Your task to perform on an android device: find snoozed emails in the gmail app Image 0: 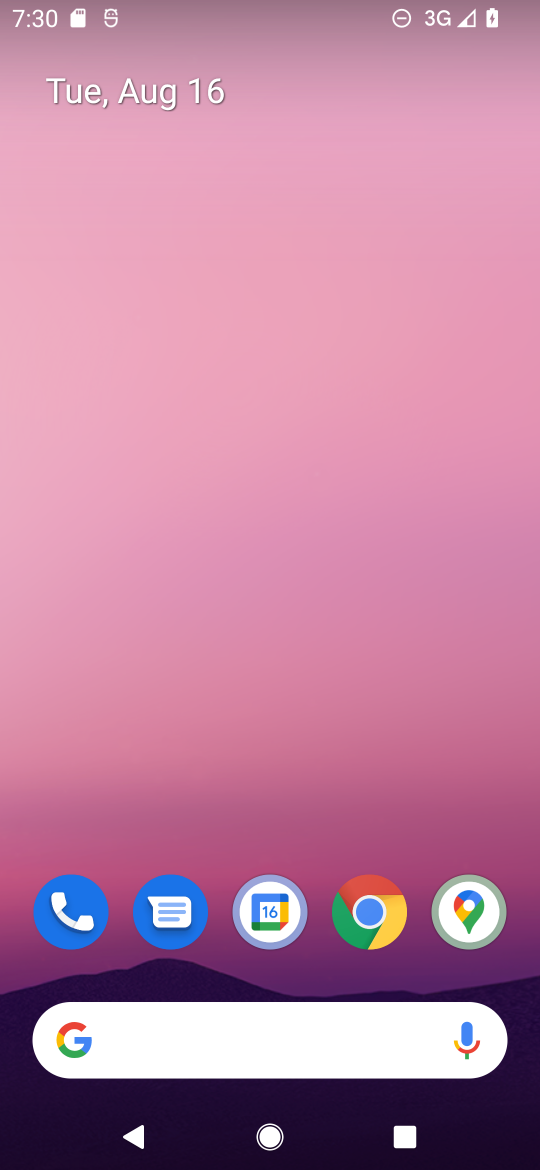
Step 0: drag from (424, 967) to (380, 72)
Your task to perform on an android device: find snoozed emails in the gmail app Image 1: 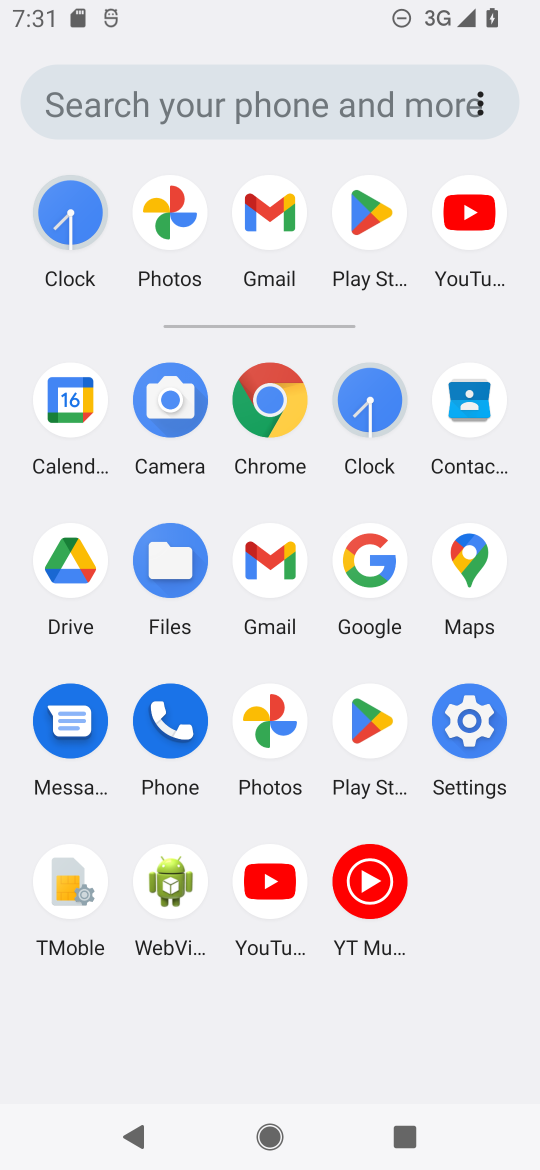
Step 1: click (268, 561)
Your task to perform on an android device: find snoozed emails in the gmail app Image 2: 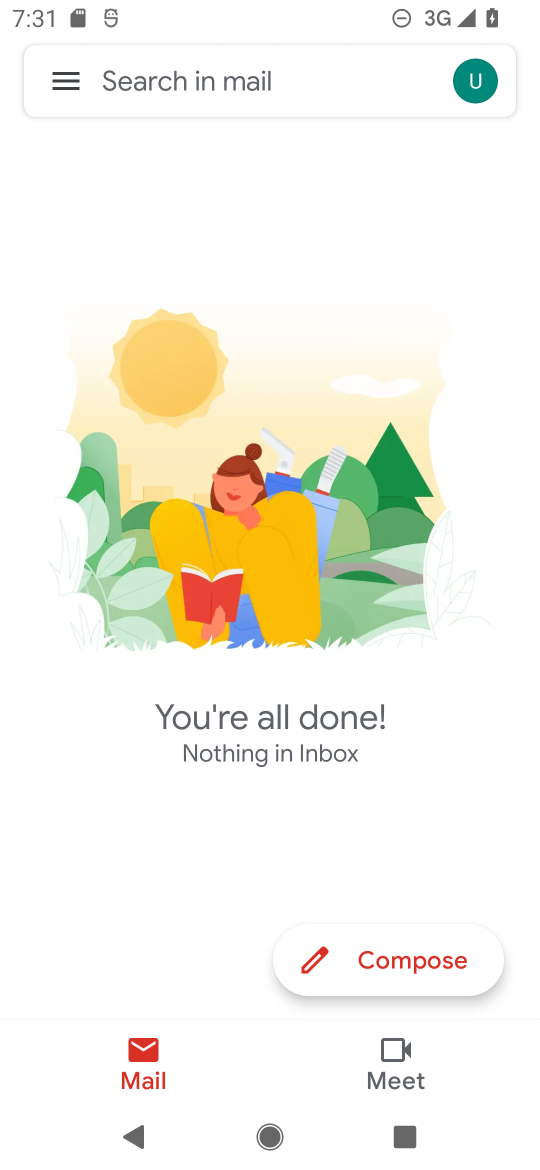
Step 2: click (57, 84)
Your task to perform on an android device: find snoozed emails in the gmail app Image 3: 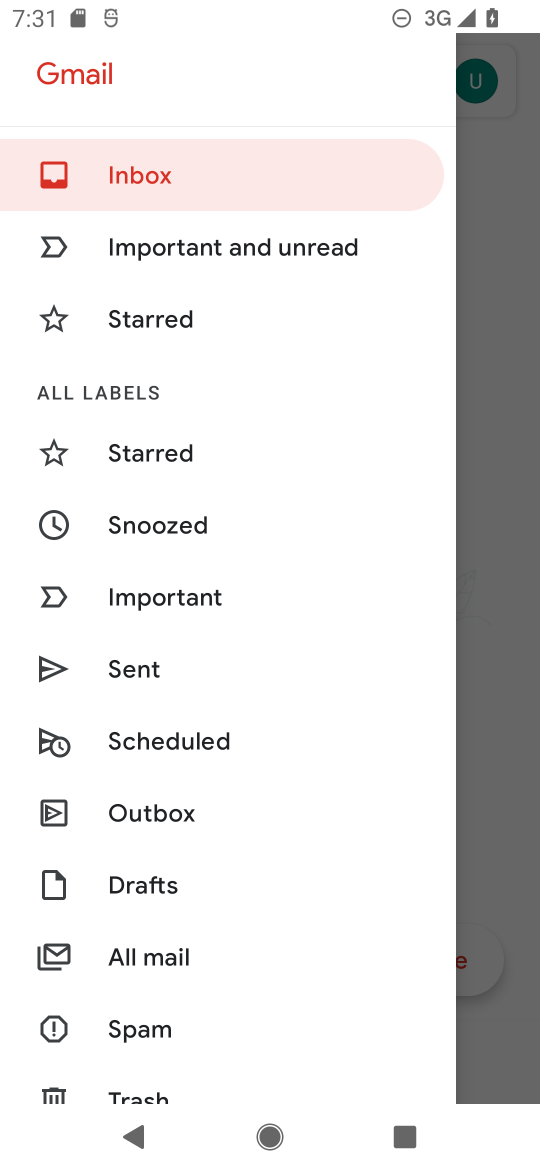
Step 3: drag from (278, 1022) to (280, 861)
Your task to perform on an android device: find snoozed emails in the gmail app Image 4: 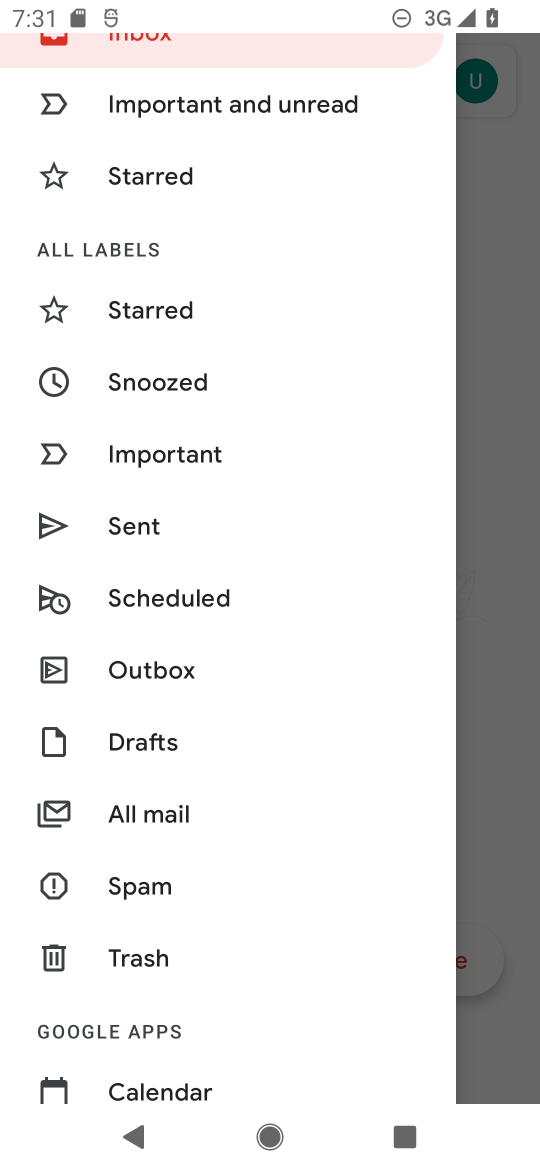
Step 4: click (166, 386)
Your task to perform on an android device: find snoozed emails in the gmail app Image 5: 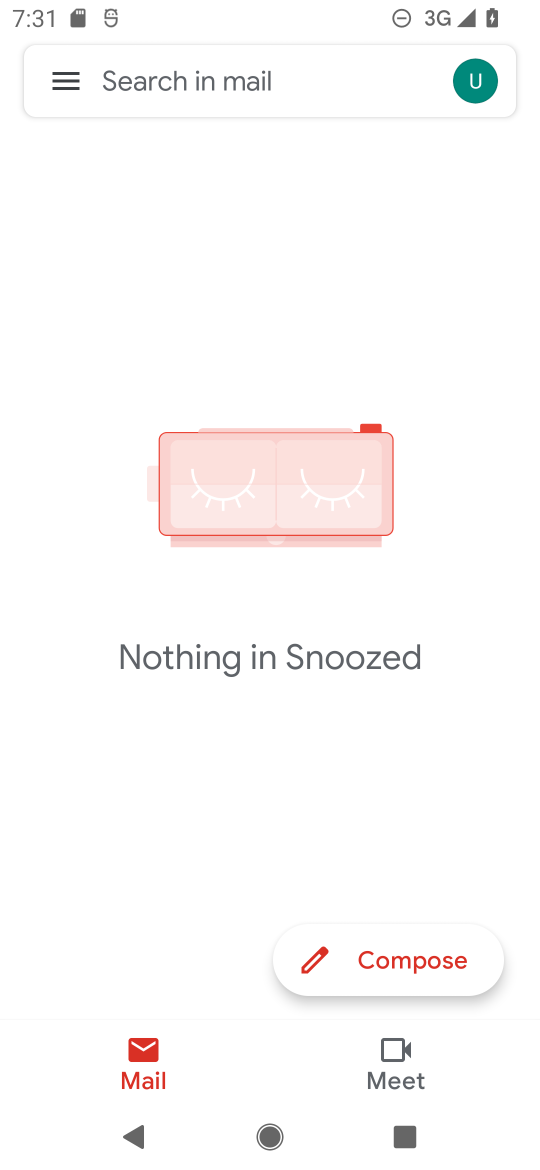
Step 5: task complete